Your task to perform on an android device: Open the map Image 0: 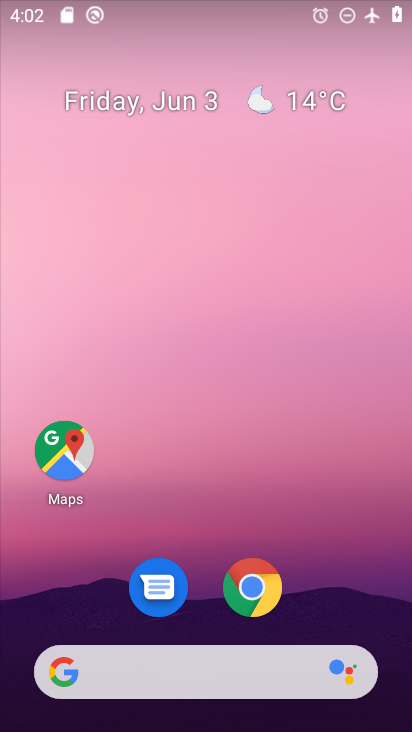
Step 0: drag from (206, 727) to (185, 174)
Your task to perform on an android device: Open the map Image 1: 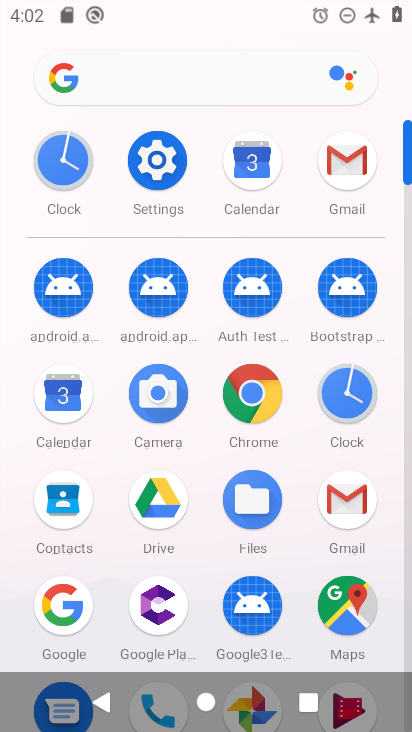
Step 1: click (356, 598)
Your task to perform on an android device: Open the map Image 2: 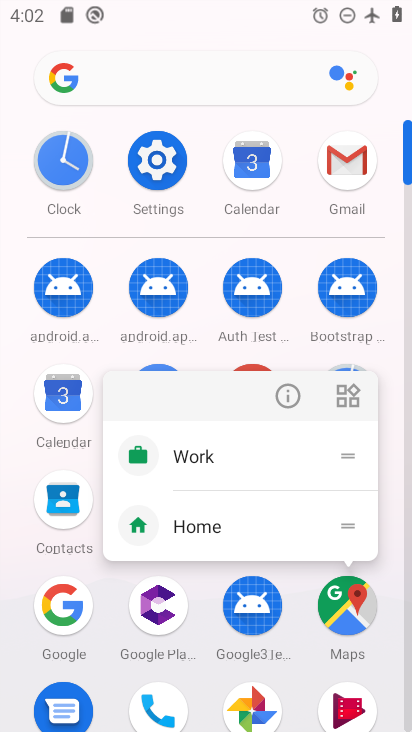
Step 2: click (346, 602)
Your task to perform on an android device: Open the map Image 3: 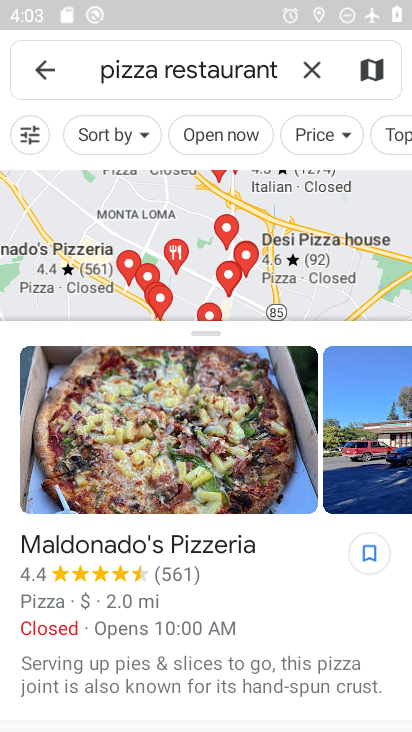
Step 3: task complete